Your task to perform on an android device: Open maps Image 0: 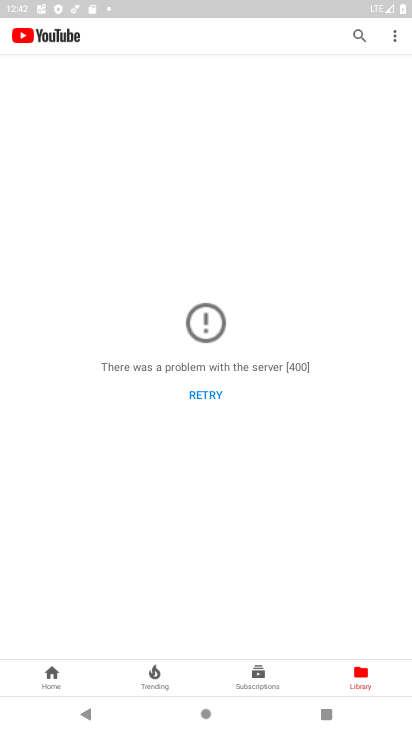
Step 0: drag from (215, 586) to (215, 397)
Your task to perform on an android device: Open maps Image 1: 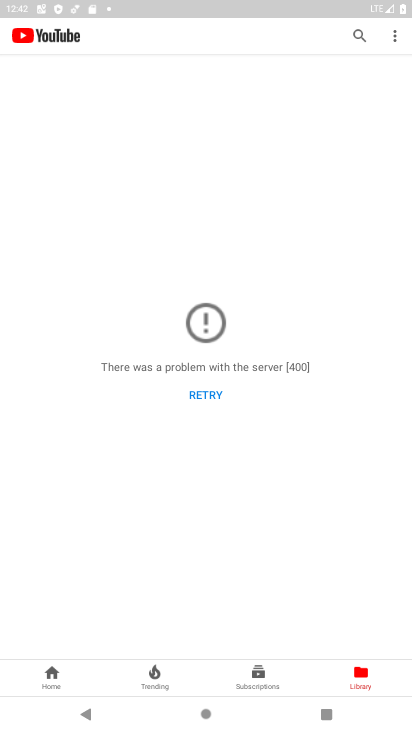
Step 1: press home button
Your task to perform on an android device: Open maps Image 2: 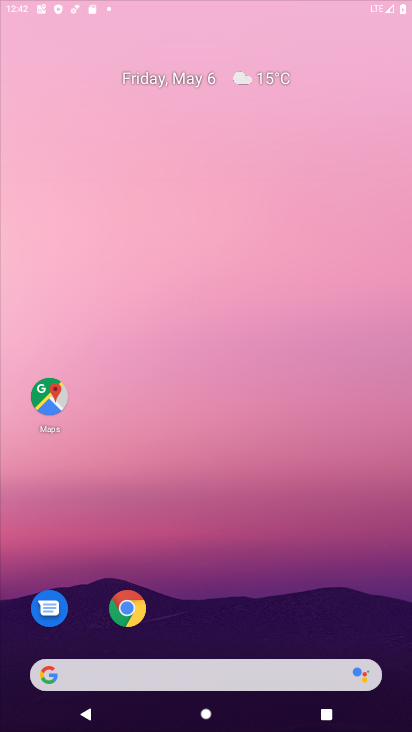
Step 2: drag from (199, 621) to (242, 227)
Your task to perform on an android device: Open maps Image 3: 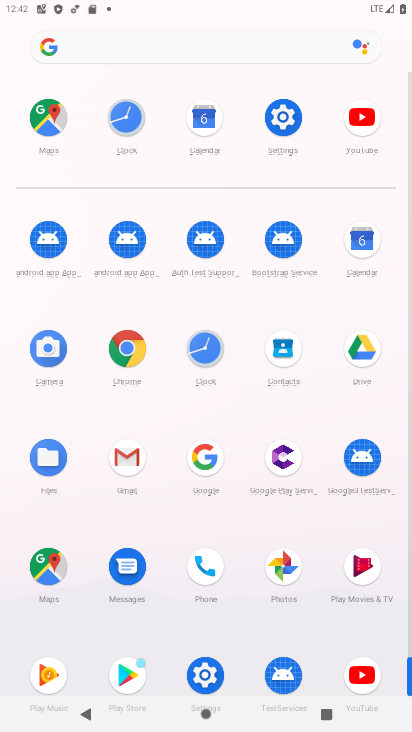
Step 3: click (52, 565)
Your task to perform on an android device: Open maps Image 4: 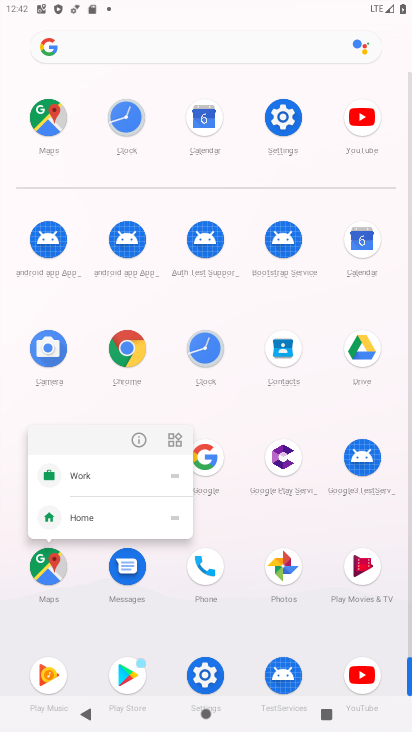
Step 4: click (129, 441)
Your task to perform on an android device: Open maps Image 5: 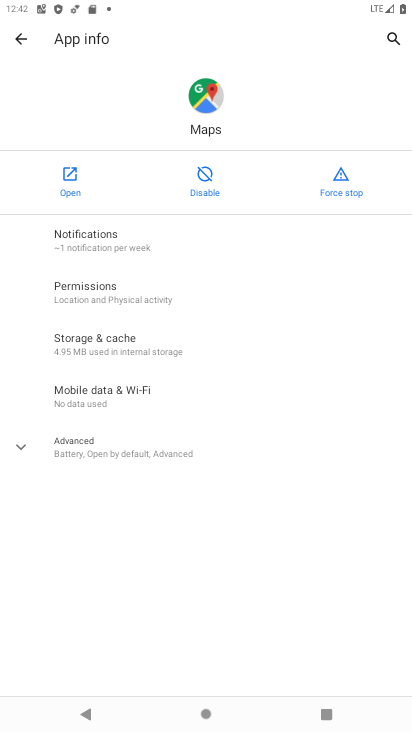
Step 5: click (74, 175)
Your task to perform on an android device: Open maps Image 6: 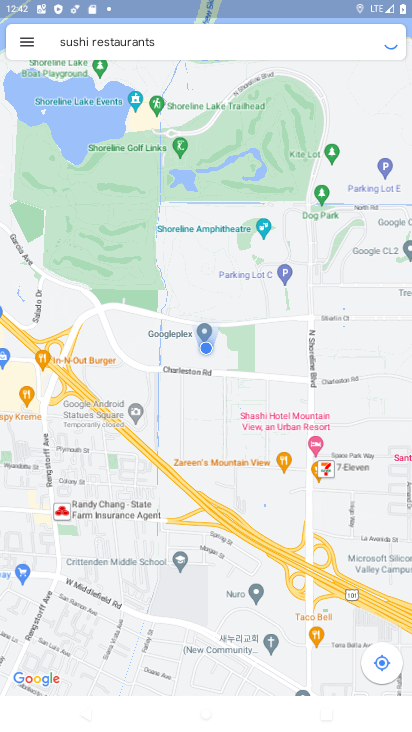
Step 6: task complete